Your task to perform on an android device: Go to Wikipedia Image 0: 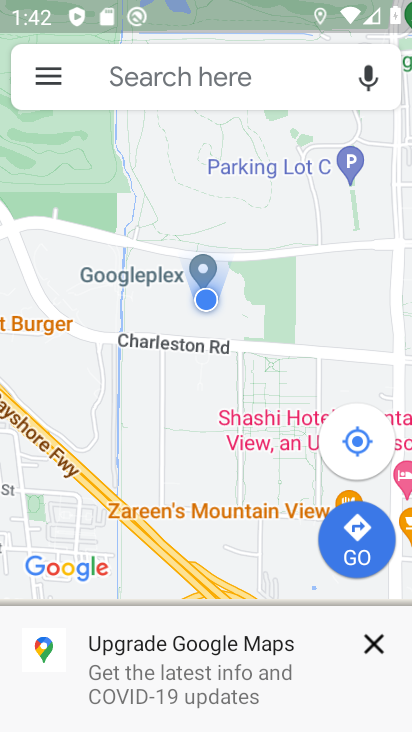
Step 0: press home button
Your task to perform on an android device: Go to Wikipedia Image 1: 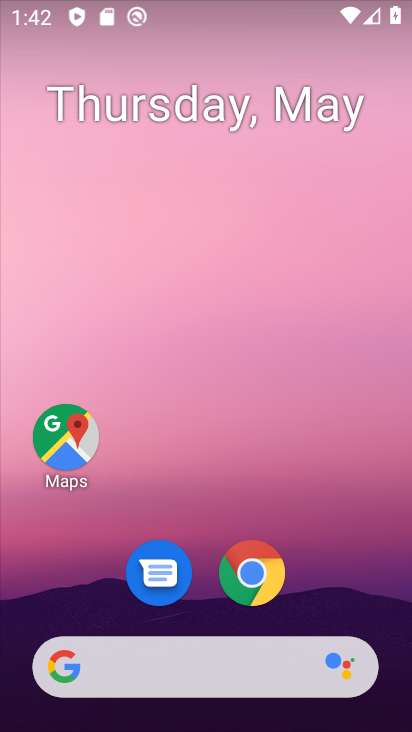
Step 1: drag from (331, 592) to (254, 134)
Your task to perform on an android device: Go to Wikipedia Image 2: 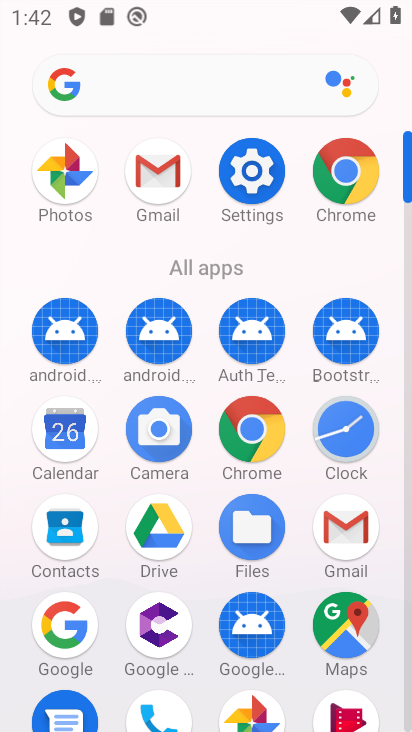
Step 2: click (339, 160)
Your task to perform on an android device: Go to Wikipedia Image 3: 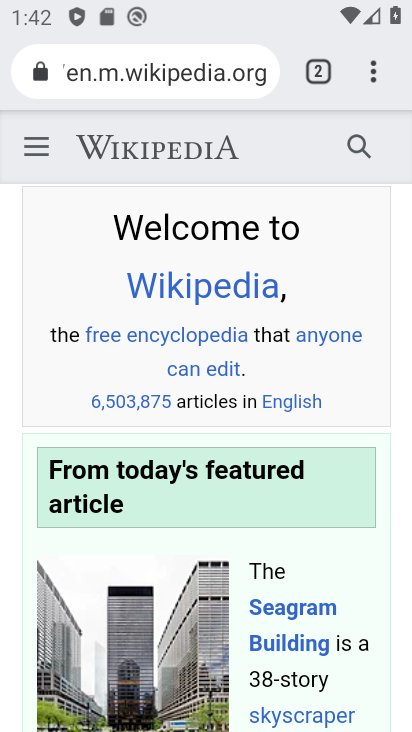
Step 3: task complete